Your task to perform on an android device: stop showing notifications on the lock screen Image 0: 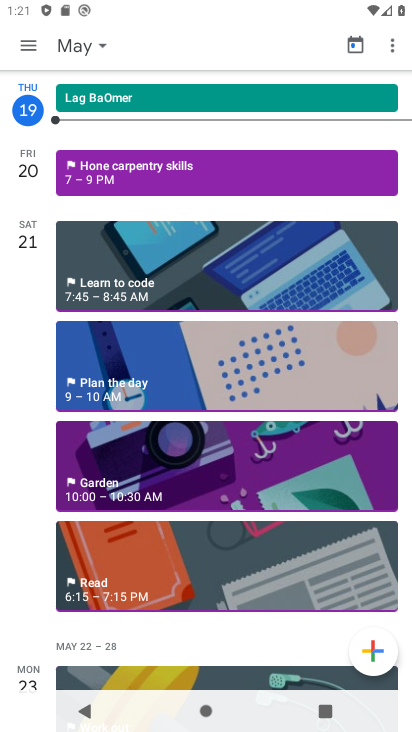
Step 0: press home button
Your task to perform on an android device: stop showing notifications on the lock screen Image 1: 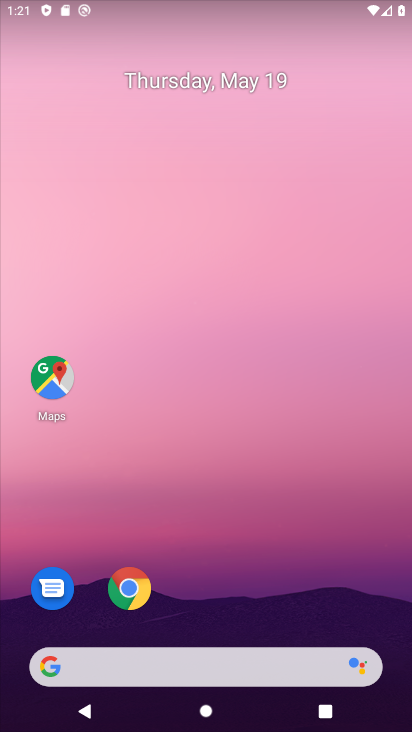
Step 1: drag from (228, 551) to (182, 116)
Your task to perform on an android device: stop showing notifications on the lock screen Image 2: 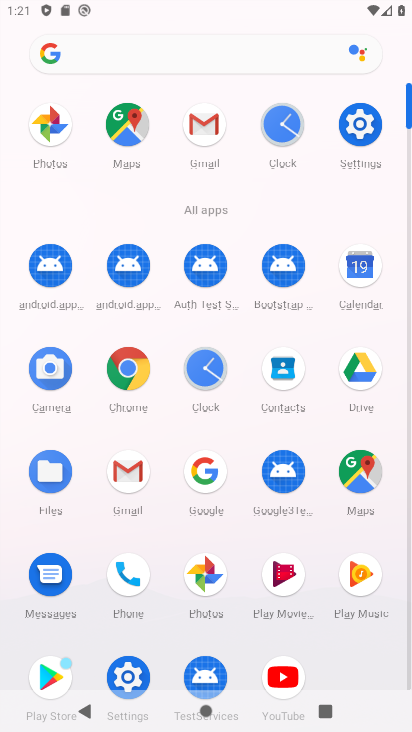
Step 2: click (347, 132)
Your task to perform on an android device: stop showing notifications on the lock screen Image 3: 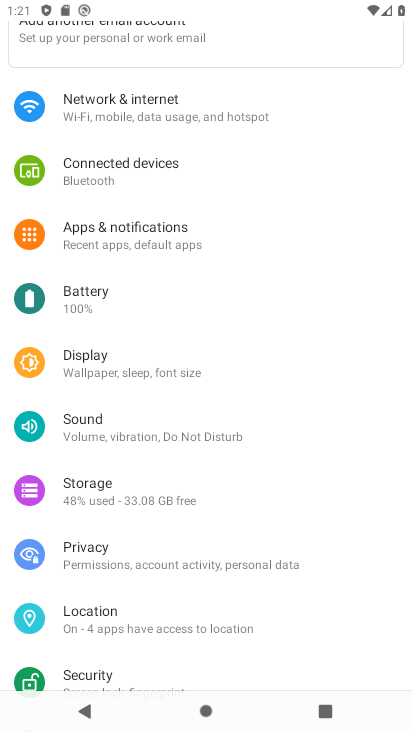
Step 3: drag from (212, 595) to (228, 233)
Your task to perform on an android device: stop showing notifications on the lock screen Image 4: 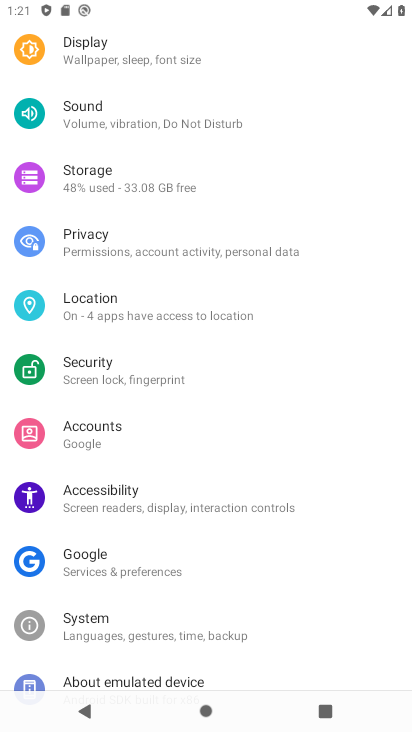
Step 4: drag from (147, 152) to (180, 407)
Your task to perform on an android device: stop showing notifications on the lock screen Image 5: 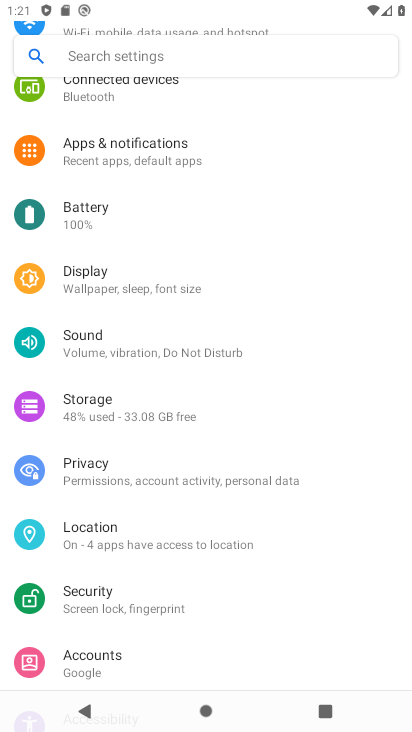
Step 5: click (151, 168)
Your task to perform on an android device: stop showing notifications on the lock screen Image 6: 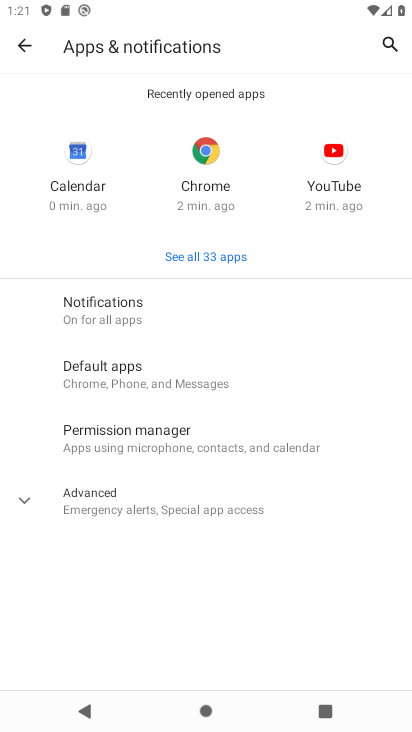
Step 6: click (173, 336)
Your task to perform on an android device: stop showing notifications on the lock screen Image 7: 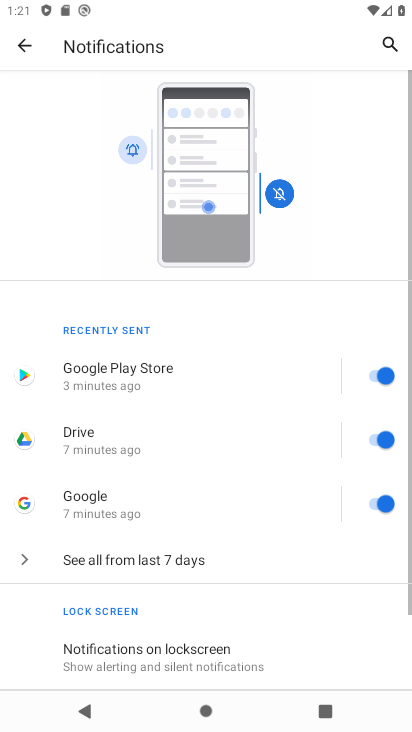
Step 7: drag from (183, 592) to (231, 160)
Your task to perform on an android device: stop showing notifications on the lock screen Image 8: 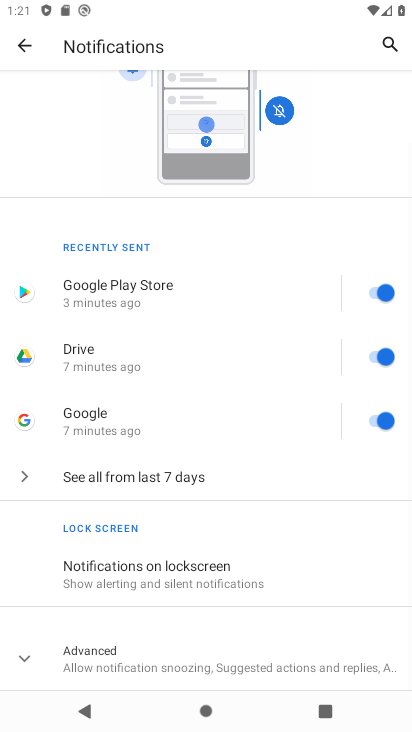
Step 8: click (147, 667)
Your task to perform on an android device: stop showing notifications on the lock screen Image 9: 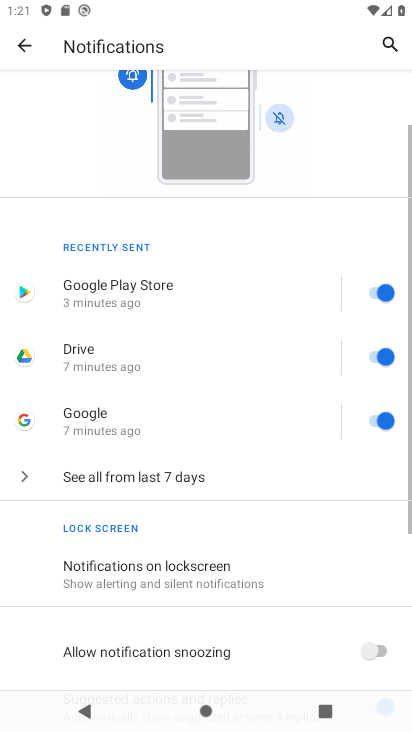
Step 9: drag from (254, 439) to (257, 142)
Your task to perform on an android device: stop showing notifications on the lock screen Image 10: 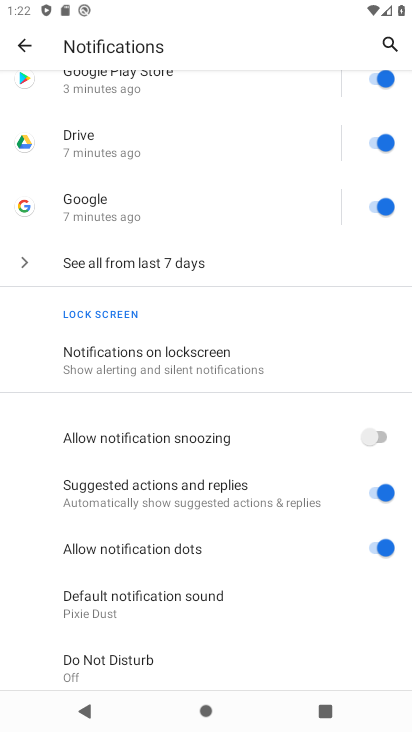
Step 10: drag from (170, 251) to (232, 668)
Your task to perform on an android device: stop showing notifications on the lock screen Image 11: 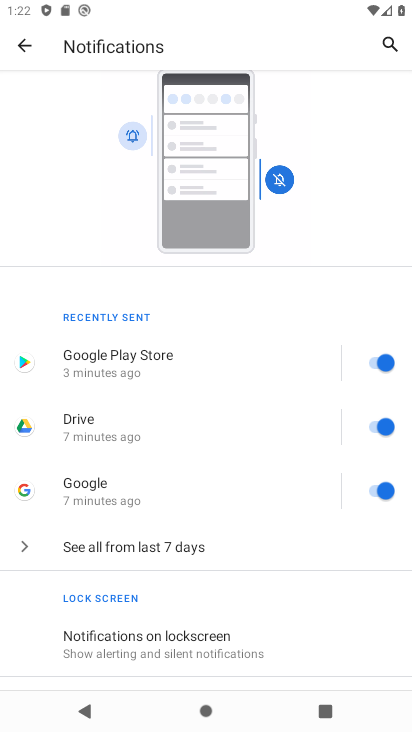
Step 11: click (208, 638)
Your task to perform on an android device: stop showing notifications on the lock screen Image 12: 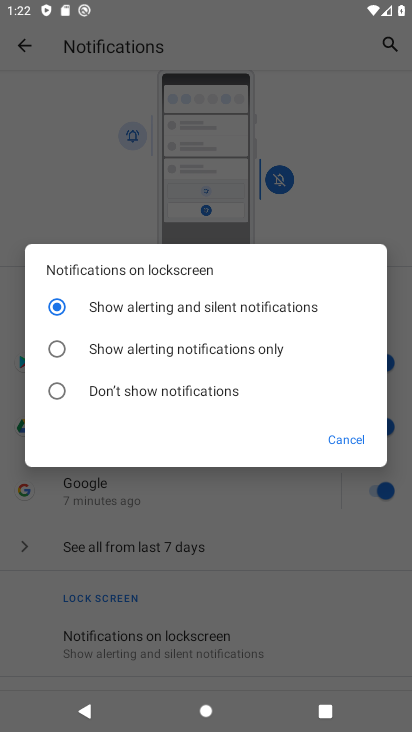
Step 12: click (194, 389)
Your task to perform on an android device: stop showing notifications on the lock screen Image 13: 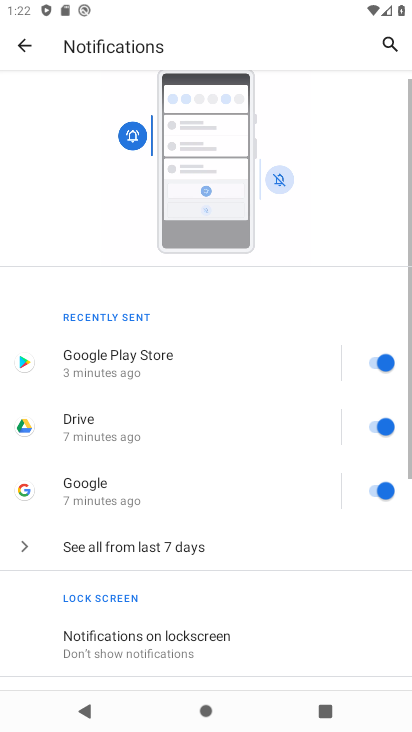
Step 13: task complete